Your task to perform on an android device: What is the news today? Image 0: 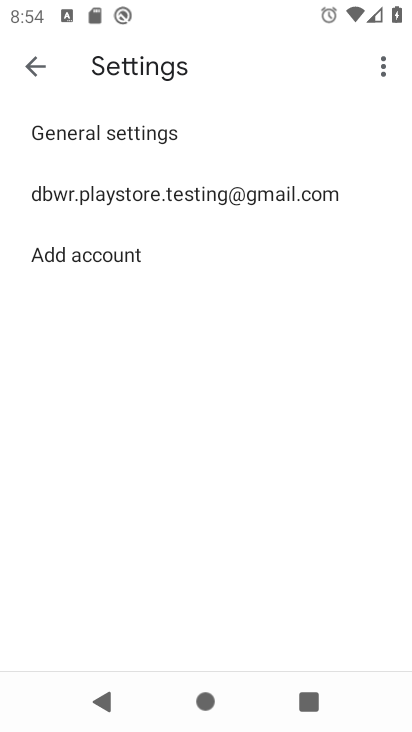
Step 0: press home button
Your task to perform on an android device: What is the news today? Image 1: 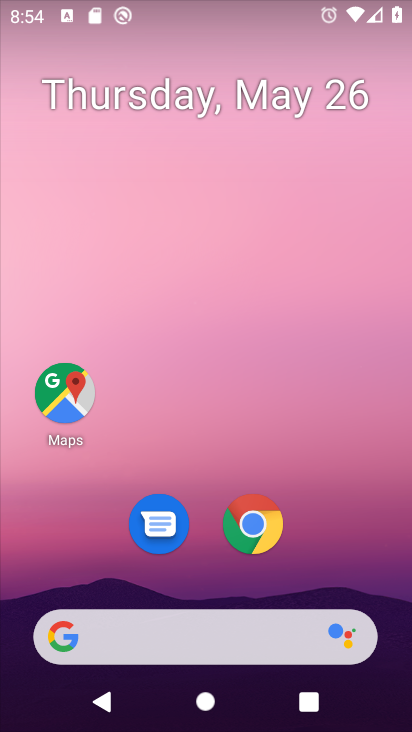
Step 1: click (247, 648)
Your task to perform on an android device: What is the news today? Image 2: 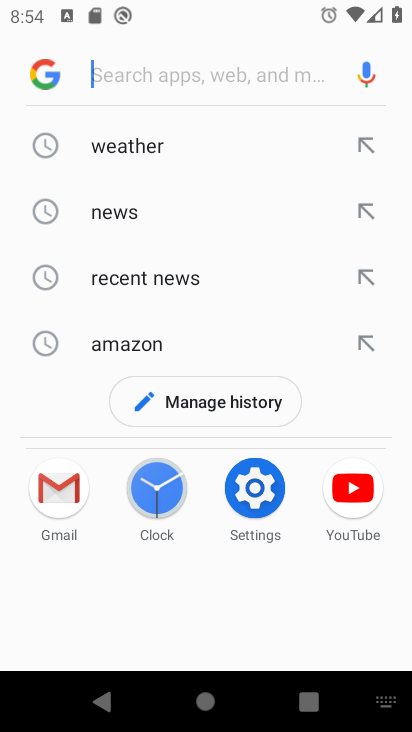
Step 2: click (130, 219)
Your task to perform on an android device: What is the news today? Image 3: 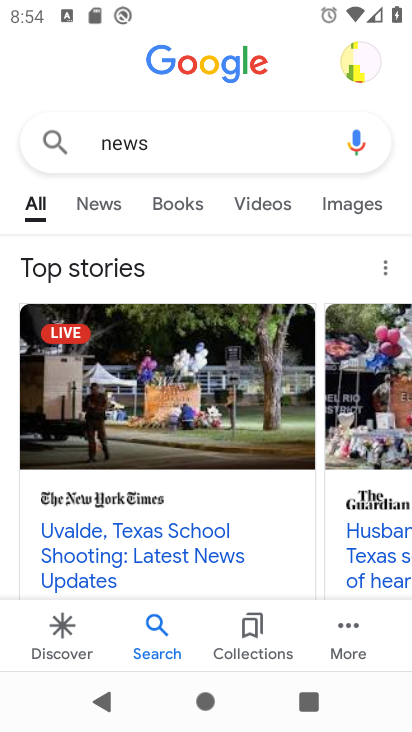
Step 3: click (93, 187)
Your task to perform on an android device: What is the news today? Image 4: 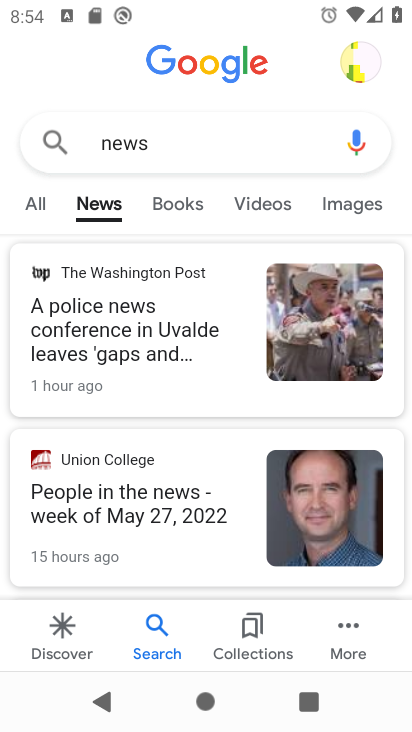
Step 4: task complete